Your task to perform on an android device: Open notification settings Image 0: 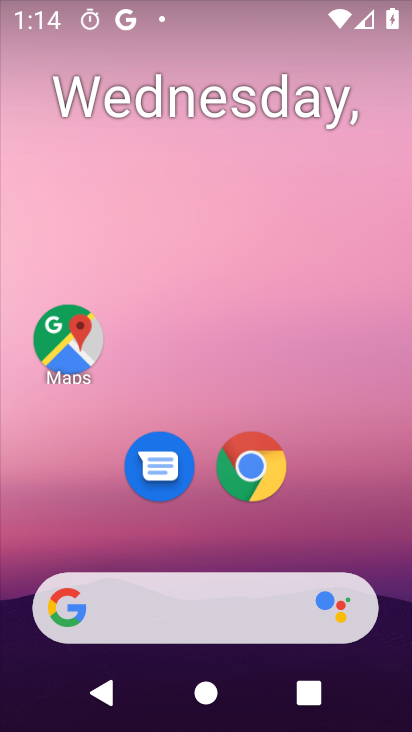
Step 0: drag from (340, 422) to (370, 24)
Your task to perform on an android device: Open notification settings Image 1: 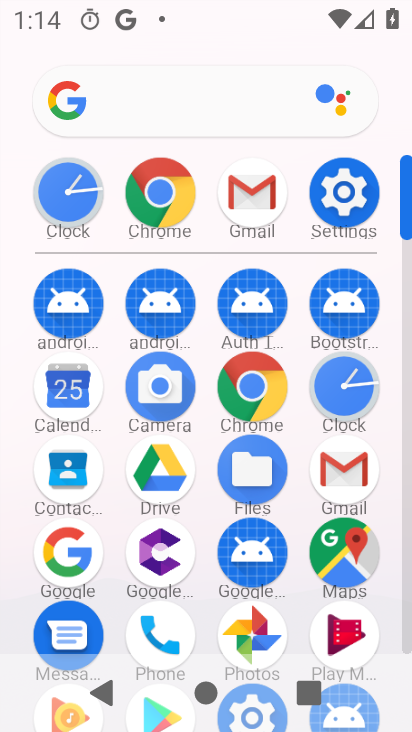
Step 1: click (356, 218)
Your task to perform on an android device: Open notification settings Image 2: 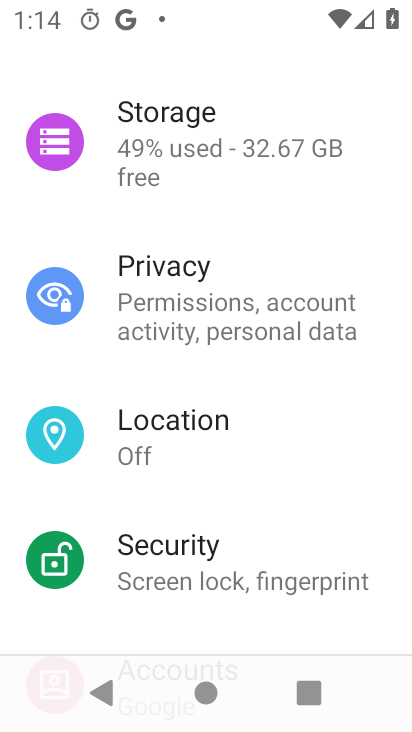
Step 2: drag from (215, 362) to (246, 568)
Your task to perform on an android device: Open notification settings Image 3: 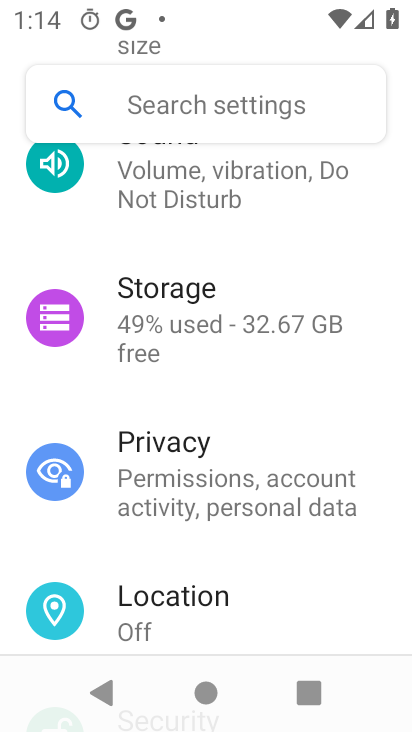
Step 3: drag from (255, 335) to (307, 597)
Your task to perform on an android device: Open notification settings Image 4: 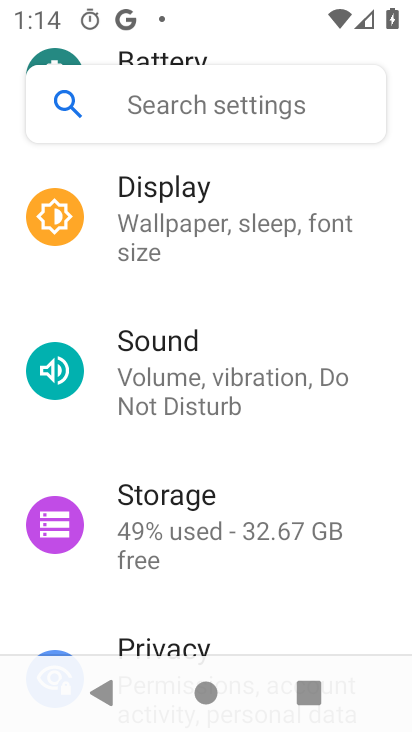
Step 4: drag from (238, 282) to (318, 621)
Your task to perform on an android device: Open notification settings Image 5: 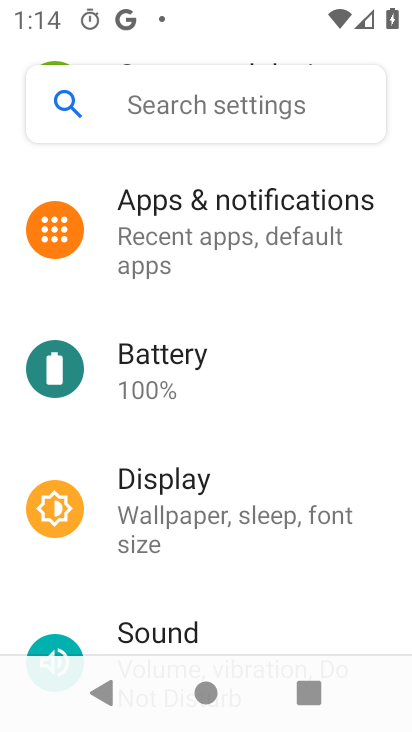
Step 5: drag from (239, 280) to (301, 579)
Your task to perform on an android device: Open notification settings Image 6: 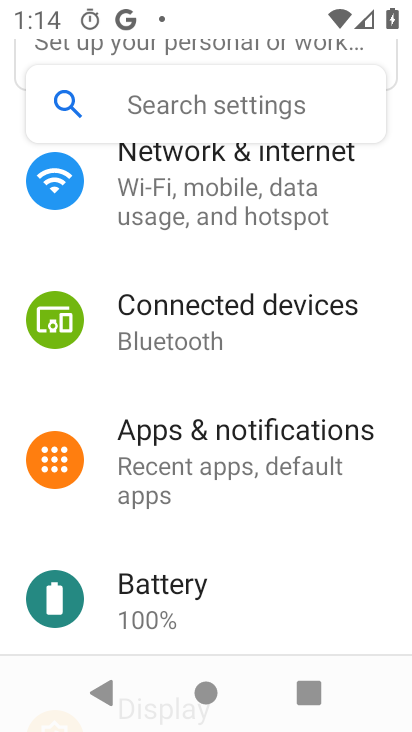
Step 6: drag from (277, 540) to (268, 299)
Your task to perform on an android device: Open notification settings Image 7: 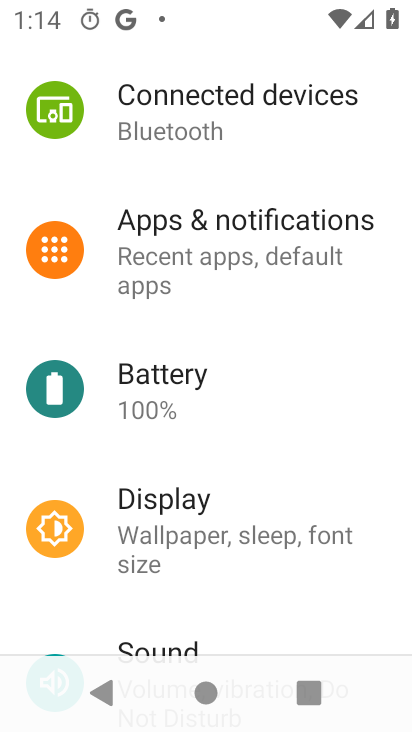
Step 7: click (257, 231)
Your task to perform on an android device: Open notification settings Image 8: 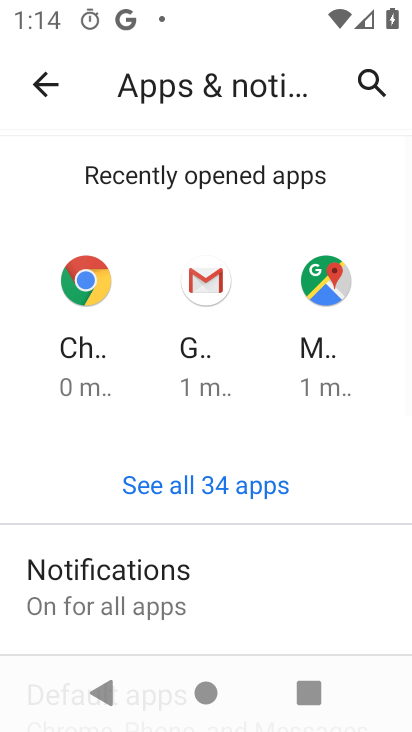
Step 8: drag from (251, 591) to (248, 214)
Your task to perform on an android device: Open notification settings Image 9: 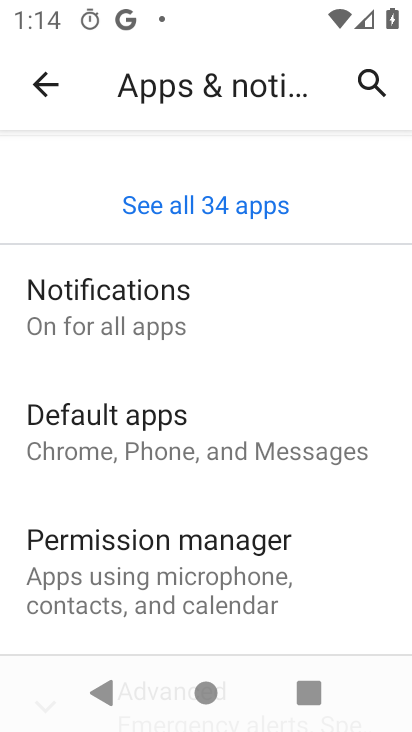
Step 9: drag from (217, 485) to (211, 177)
Your task to perform on an android device: Open notification settings Image 10: 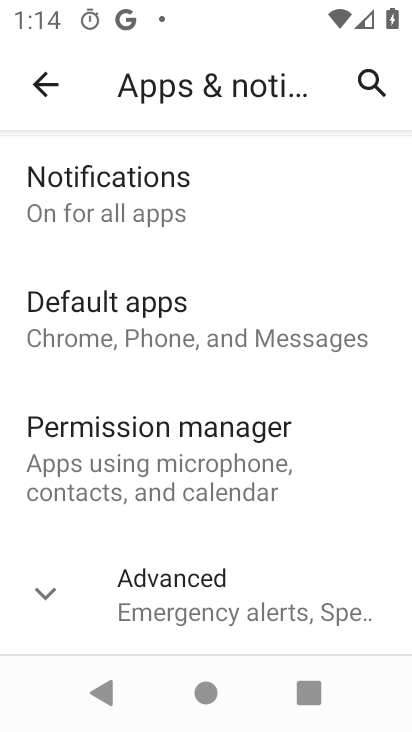
Step 10: click (160, 599)
Your task to perform on an android device: Open notification settings Image 11: 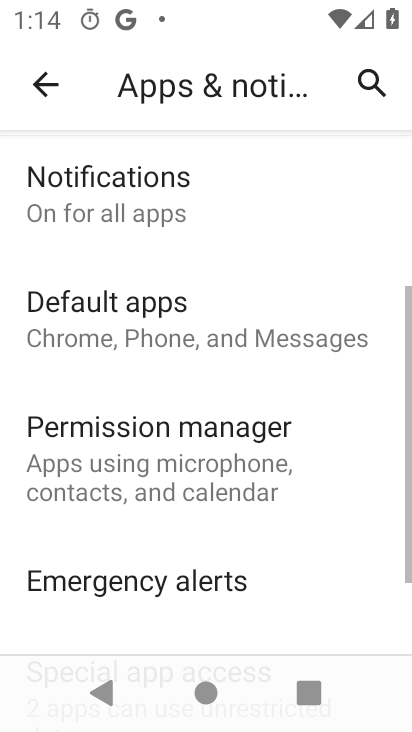
Step 11: drag from (163, 593) to (167, 254)
Your task to perform on an android device: Open notification settings Image 12: 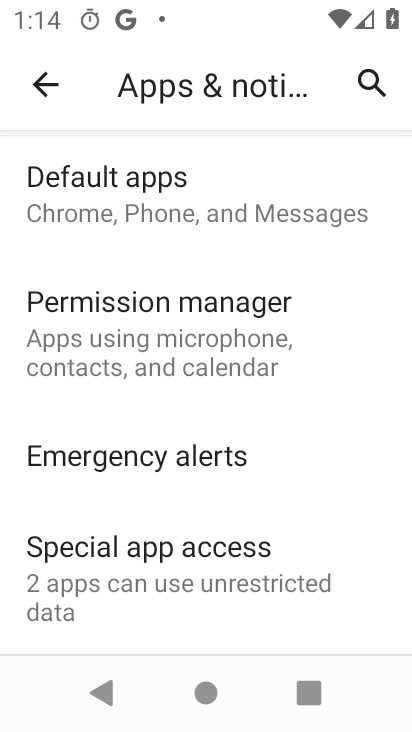
Step 12: drag from (140, 180) to (215, 489)
Your task to perform on an android device: Open notification settings Image 13: 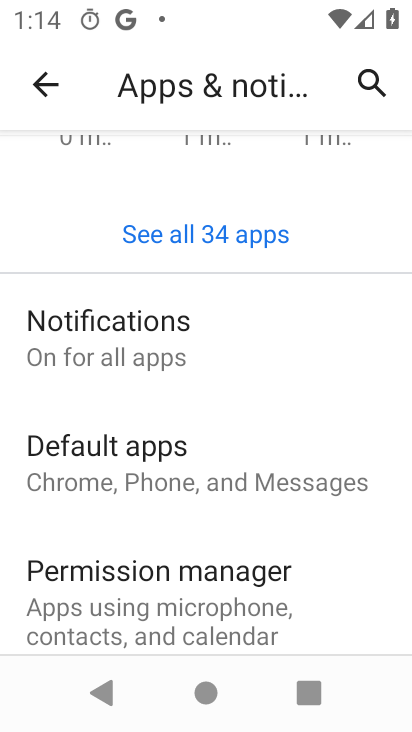
Step 13: click (175, 334)
Your task to perform on an android device: Open notification settings Image 14: 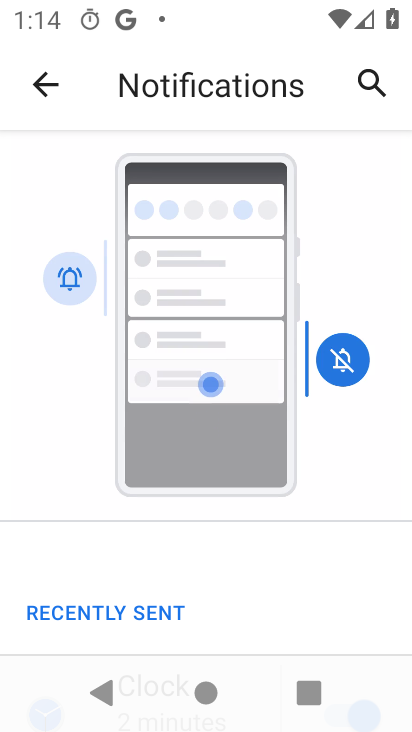
Step 14: task complete